Your task to perform on an android device: change keyboard looks Image 0: 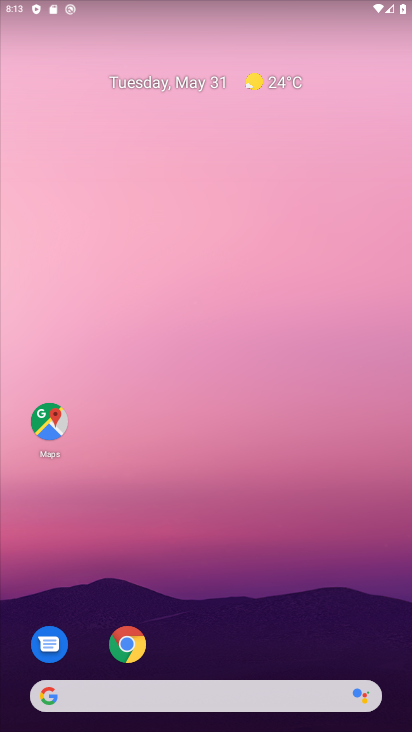
Step 0: drag from (218, 648) to (0, 213)
Your task to perform on an android device: change keyboard looks Image 1: 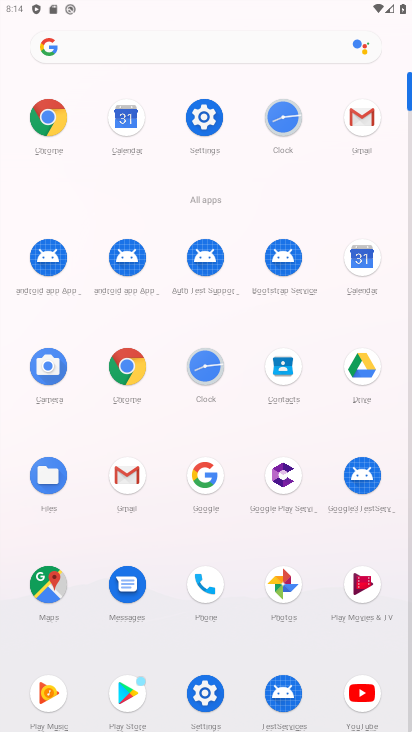
Step 1: click (207, 693)
Your task to perform on an android device: change keyboard looks Image 2: 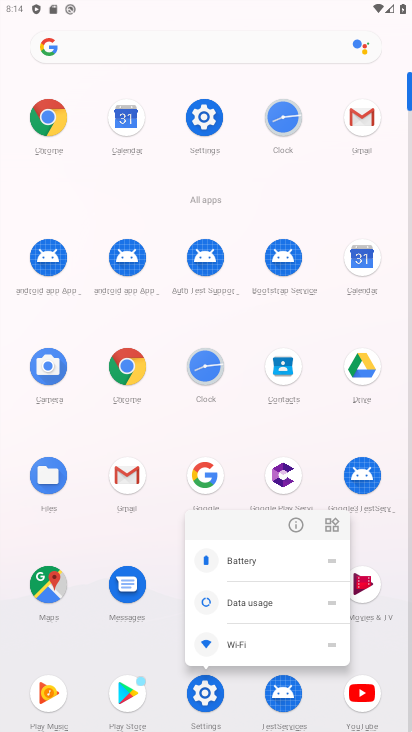
Step 2: click (289, 528)
Your task to perform on an android device: change keyboard looks Image 3: 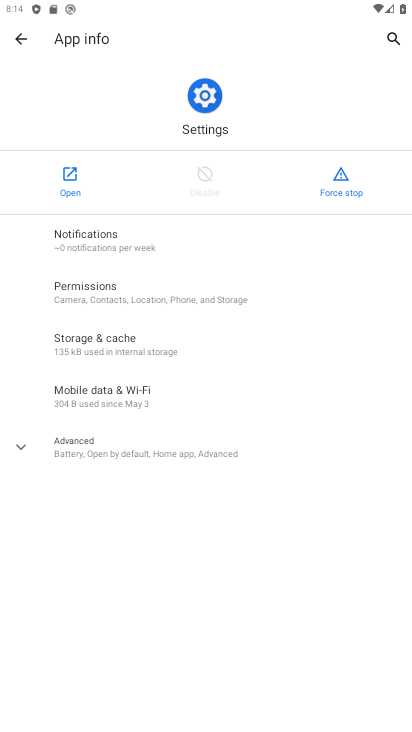
Step 3: click (65, 184)
Your task to perform on an android device: change keyboard looks Image 4: 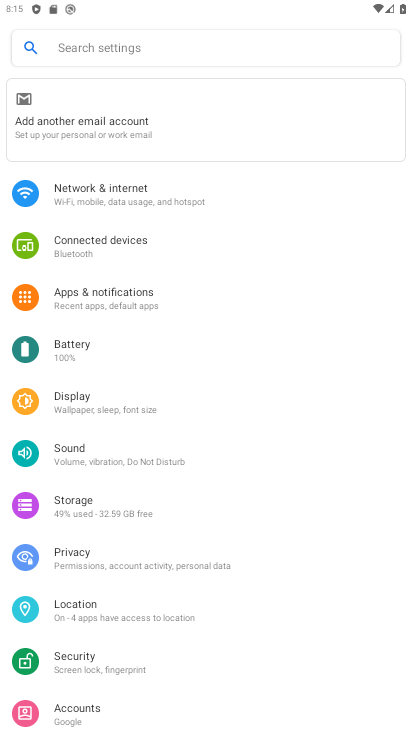
Step 4: drag from (116, 623) to (2, 331)
Your task to perform on an android device: change keyboard looks Image 5: 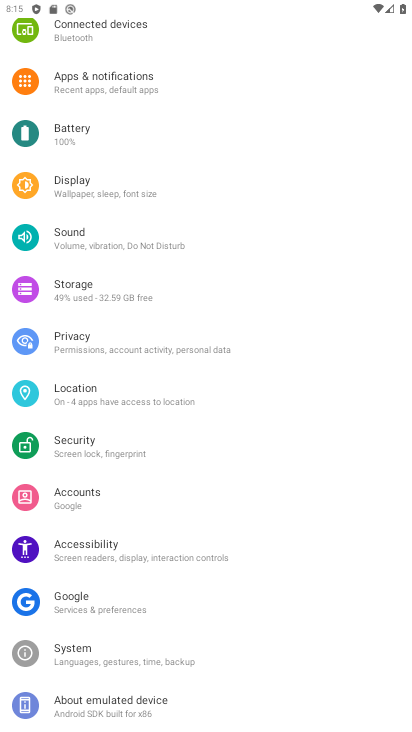
Step 5: click (120, 659)
Your task to perform on an android device: change keyboard looks Image 6: 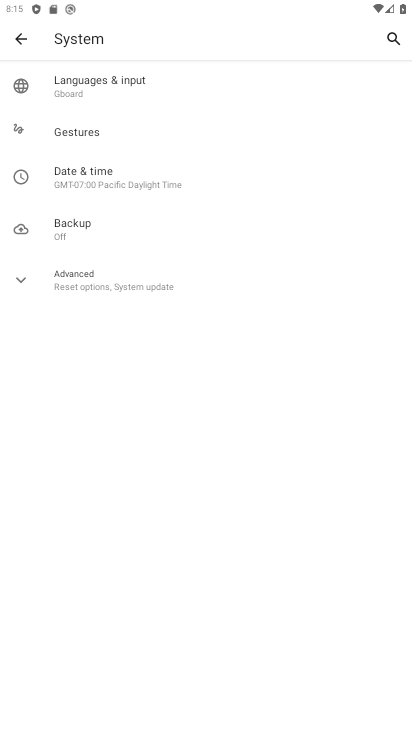
Step 6: click (44, 279)
Your task to perform on an android device: change keyboard looks Image 7: 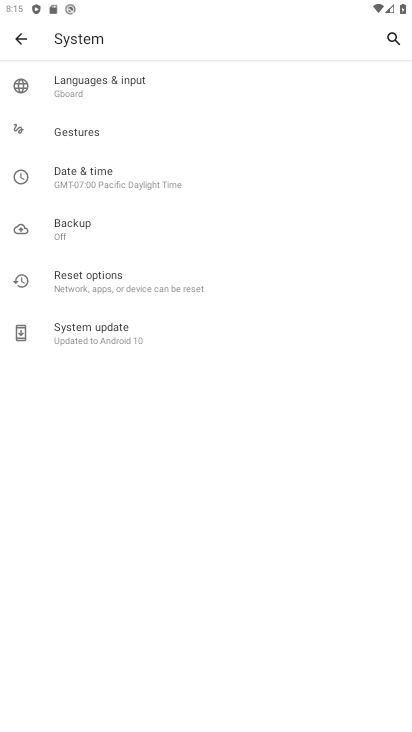
Step 7: click (75, 96)
Your task to perform on an android device: change keyboard looks Image 8: 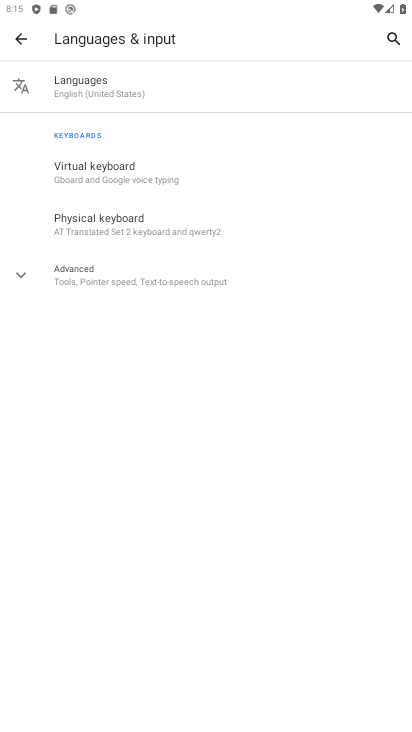
Step 8: click (139, 178)
Your task to perform on an android device: change keyboard looks Image 9: 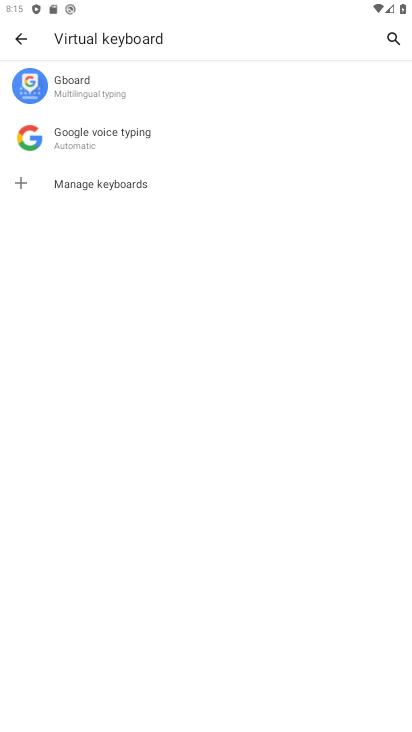
Step 9: click (88, 94)
Your task to perform on an android device: change keyboard looks Image 10: 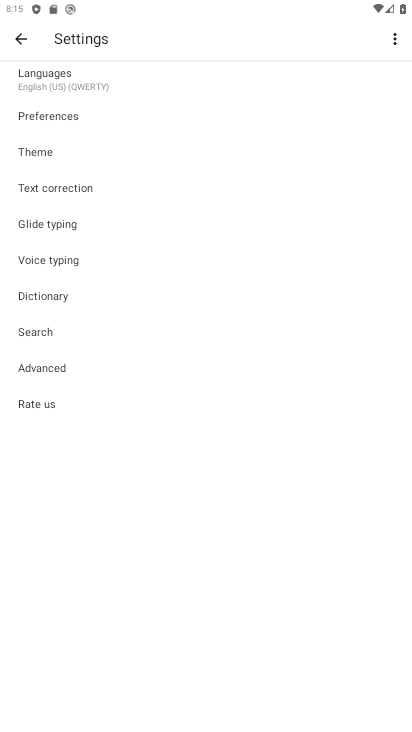
Step 10: task complete